Your task to perform on an android device: see creations saved in the google photos Image 0: 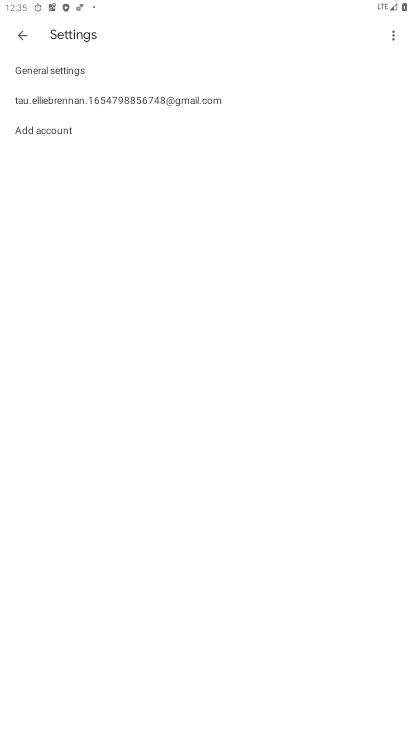
Step 0: press home button
Your task to perform on an android device: see creations saved in the google photos Image 1: 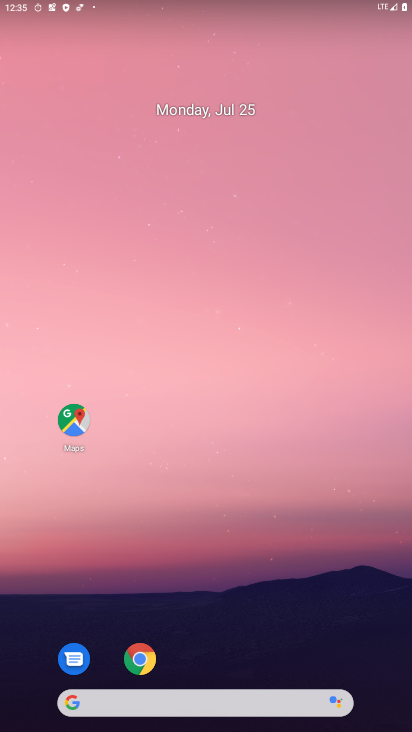
Step 1: drag from (157, 487) to (198, 314)
Your task to perform on an android device: see creations saved in the google photos Image 2: 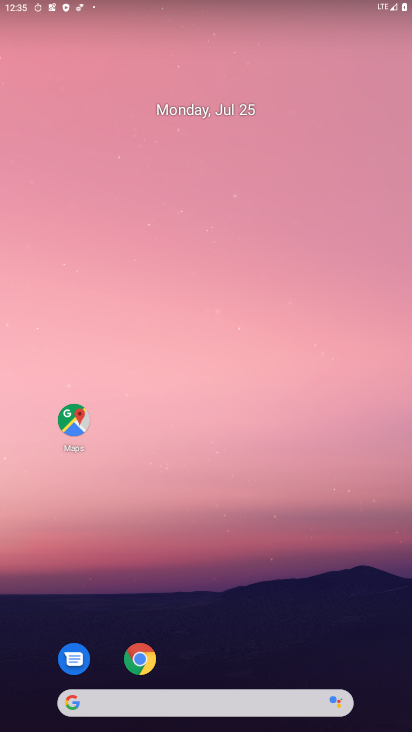
Step 2: drag from (32, 682) to (262, 162)
Your task to perform on an android device: see creations saved in the google photos Image 3: 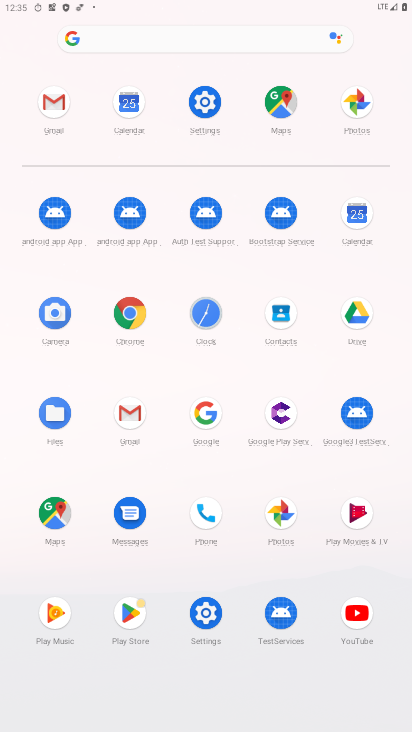
Step 3: click (269, 521)
Your task to perform on an android device: see creations saved in the google photos Image 4: 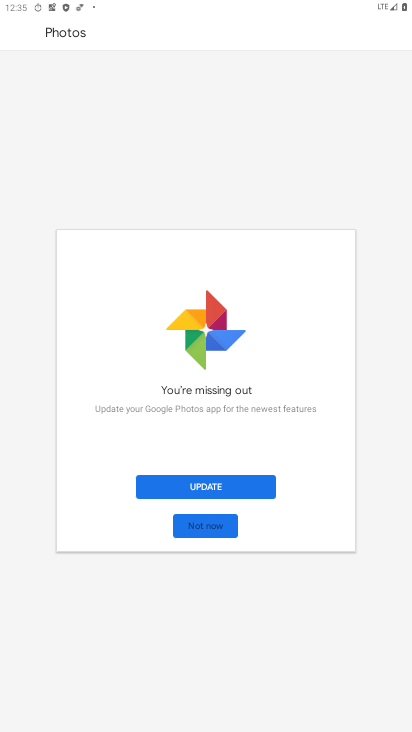
Step 4: click (196, 484)
Your task to perform on an android device: see creations saved in the google photos Image 5: 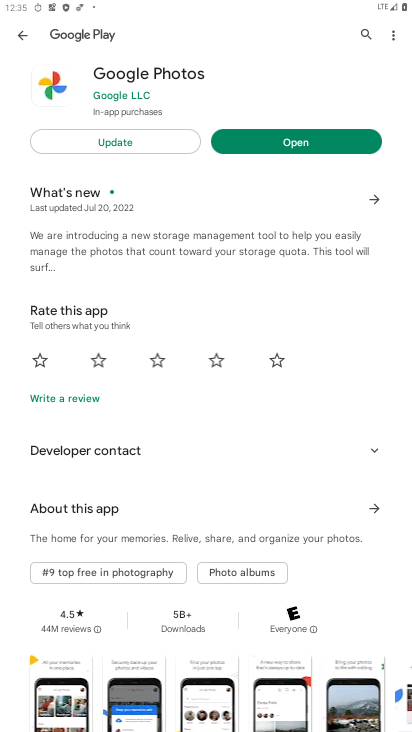
Step 5: click (302, 129)
Your task to perform on an android device: see creations saved in the google photos Image 6: 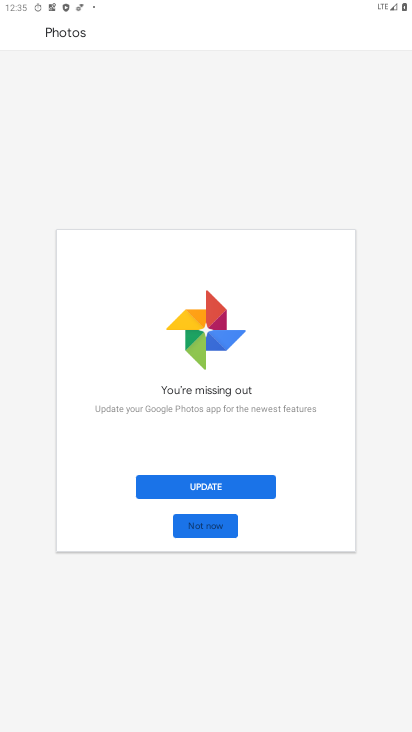
Step 6: task complete